Your task to perform on an android device: change notification settings in the gmail app Image 0: 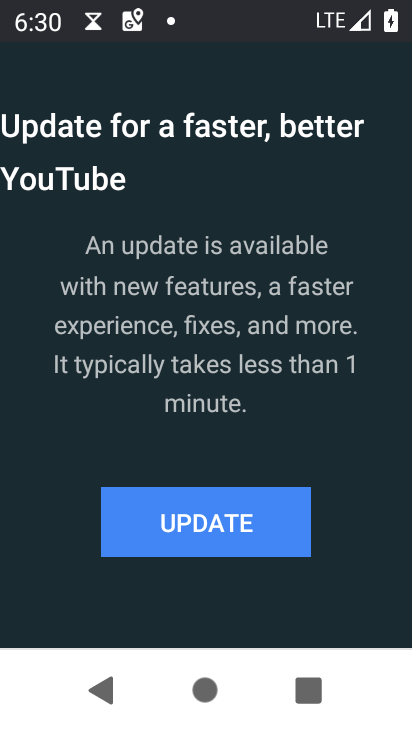
Step 0: press home button
Your task to perform on an android device: change notification settings in the gmail app Image 1: 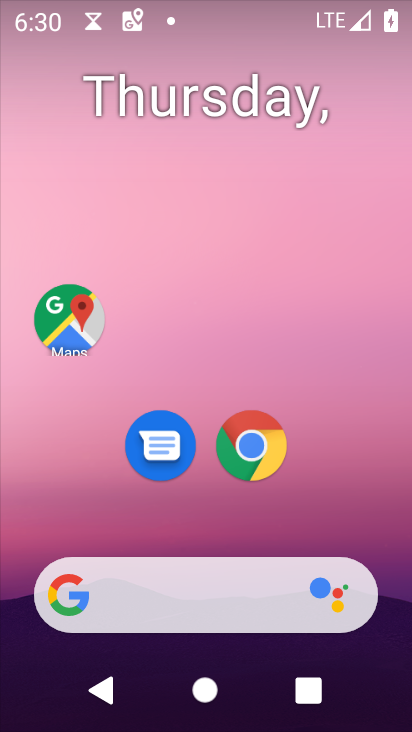
Step 1: drag from (322, 500) to (320, 91)
Your task to perform on an android device: change notification settings in the gmail app Image 2: 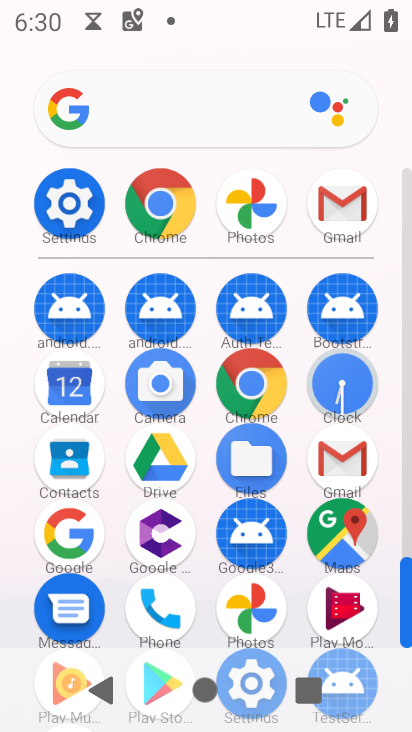
Step 2: click (344, 203)
Your task to perform on an android device: change notification settings in the gmail app Image 3: 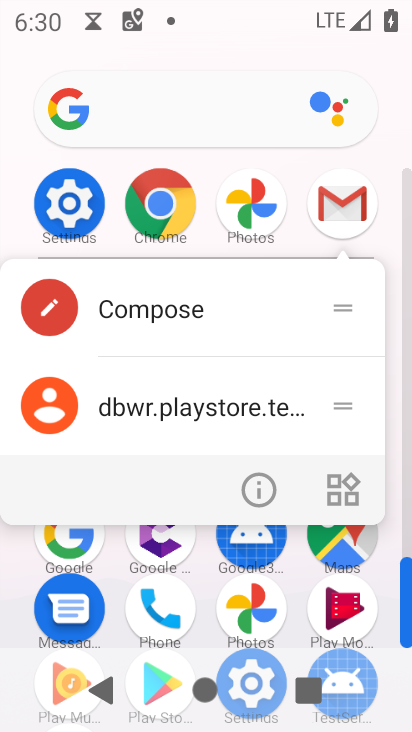
Step 3: click (255, 485)
Your task to perform on an android device: change notification settings in the gmail app Image 4: 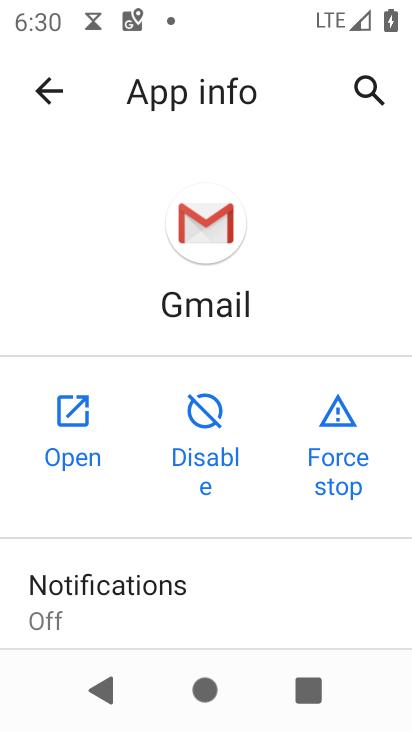
Step 4: click (104, 587)
Your task to perform on an android device: change notification settings in the gmail app Image 5: 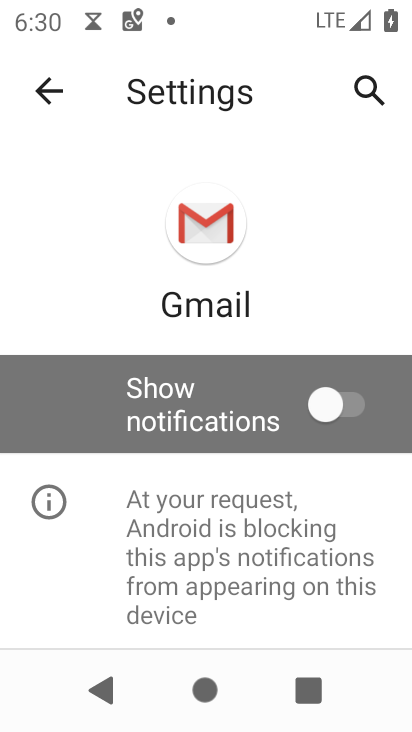
Step 5: click (350, 402)
Your task to perform on an android device: change notification settings in the gmail app Image 6: 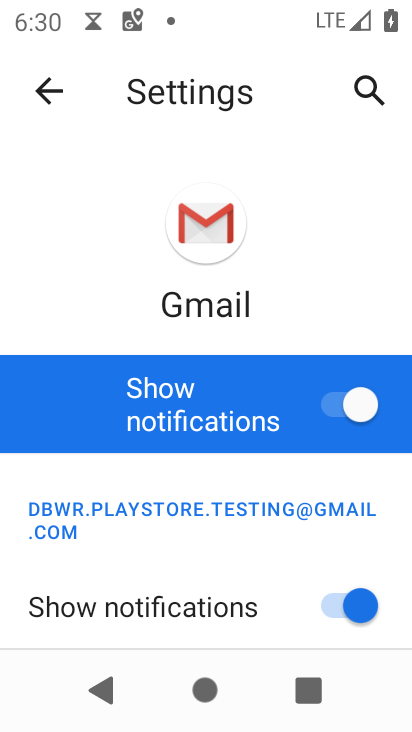
Step 6: task complete